Your task to perform on an android device: Open Google Image 0: 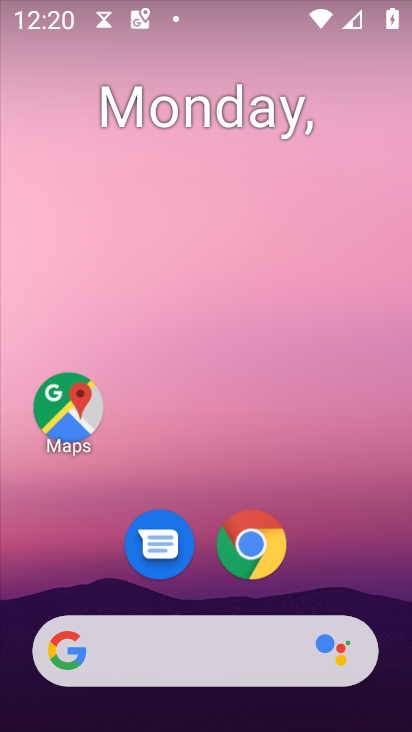
Step 0: drag from (354, 518) to (353, 263)
Your task to perform on an android device: Open Google Image 1: 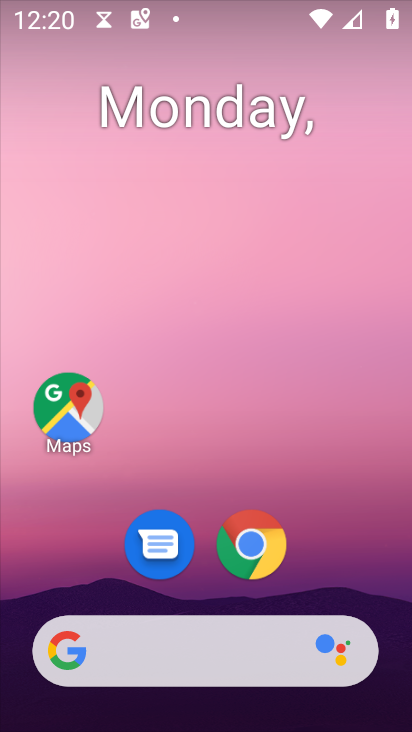
Step 1: drag from (319, 547) to (306, 243)
Your task to perform on an android device: Open Google Image 2: 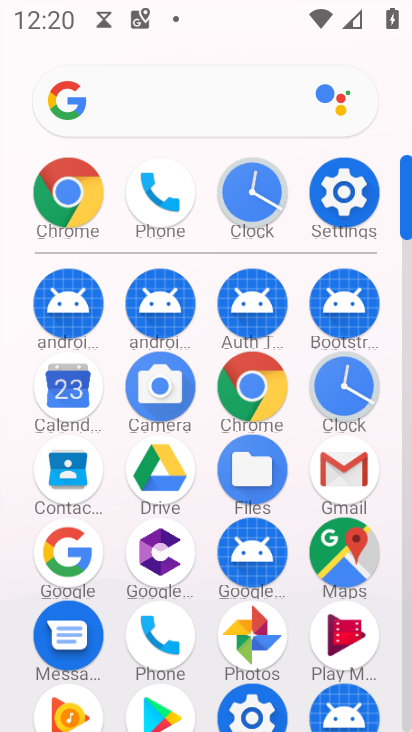
Step 2: drag from (187, 582) to (190, 393)
Your task to perform on an android device: Open Google Image 3: 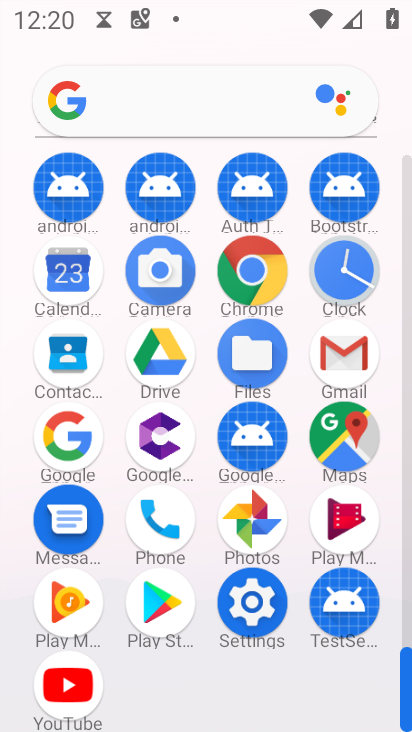
Step 3: click (80, 425)
Your task to perform on an android device: Open Google Image 4: 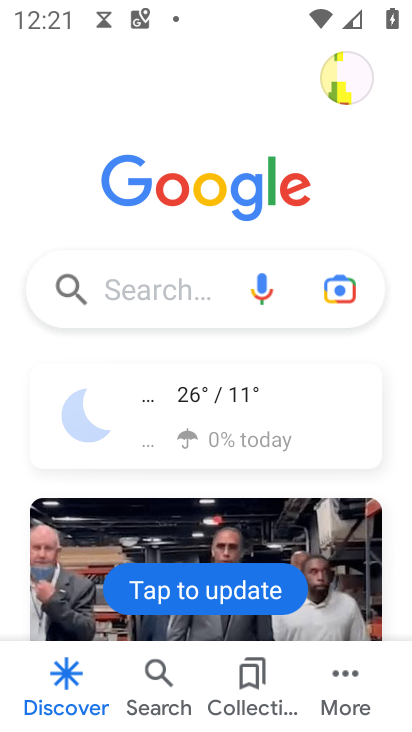
Step 4: task complete